Your task to perform on an android device: set an alarm Image 0: 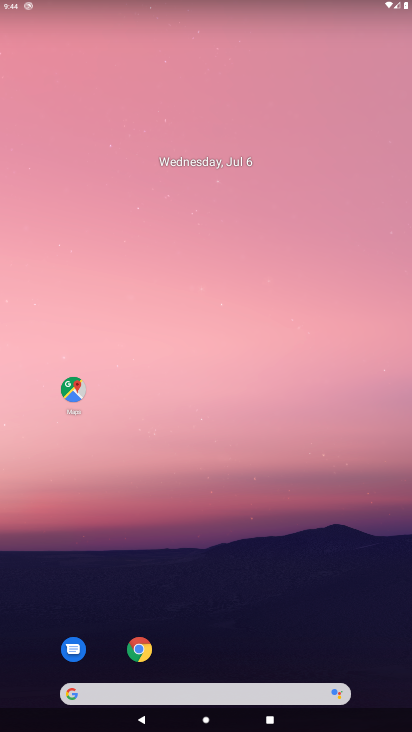
Step 0: drag from (217, 640) to (294, 186)
Your task to perform on an android device: set an alarm Image 1: 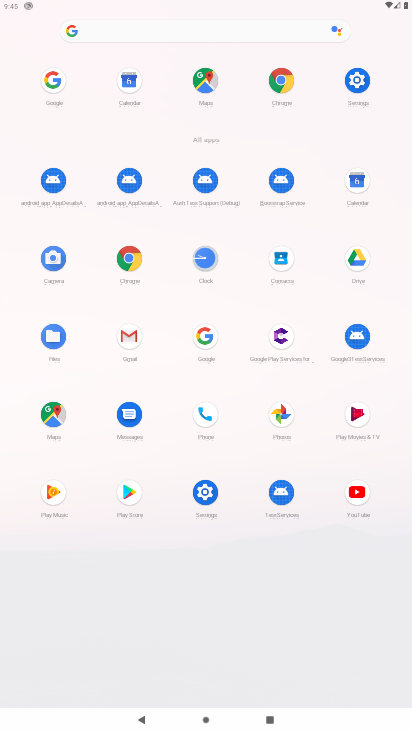
Step 1: click (204, 256)
Your task to perform on an android device: set an alarm Image 2: 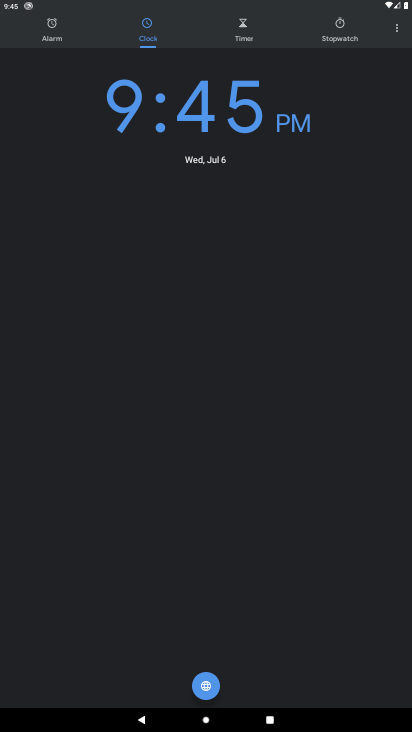
Step 2: click (59, 31)
Your task to perform on an android device: set an alarm Image 3: 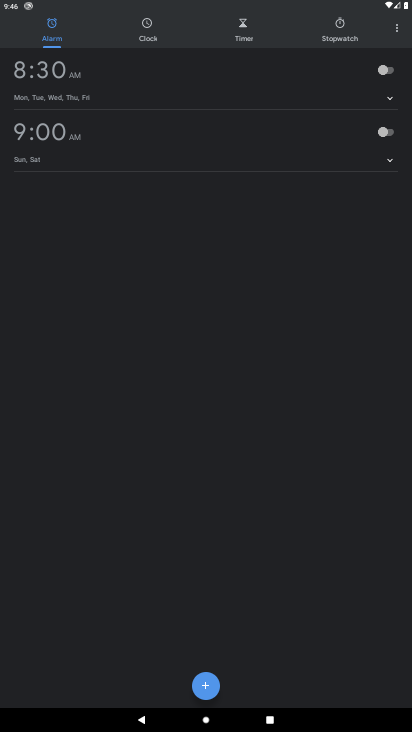
Step 3: click (392, 72)
Your task to perform on an android device: set an alarm Image 4: 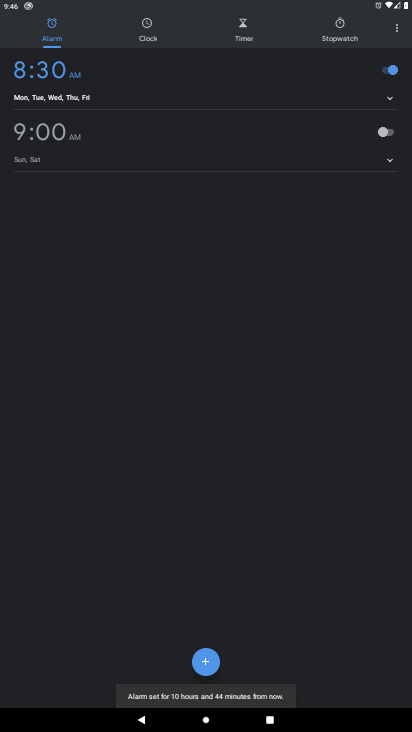
Step 4: task complete